Your task to perform on an android device: Open Reddit.com Image 0: 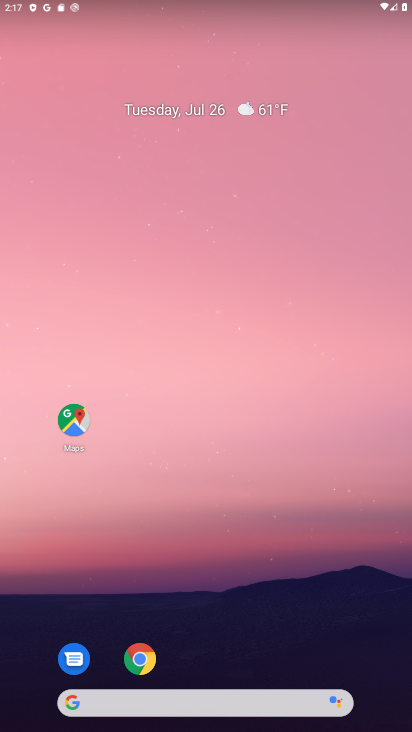
Step 0: click (133, 660)
Your task to perform on an android device: Open Reddit.com Image 1: 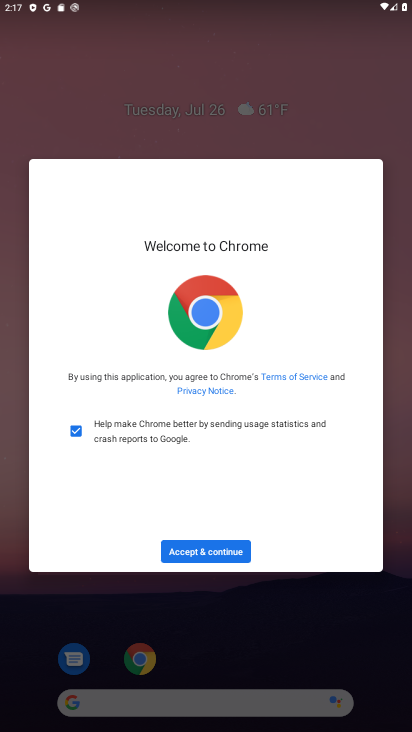
Step 1: click (245, 554)
Your task to perform on an android device: Open Reddit.com Image 2: 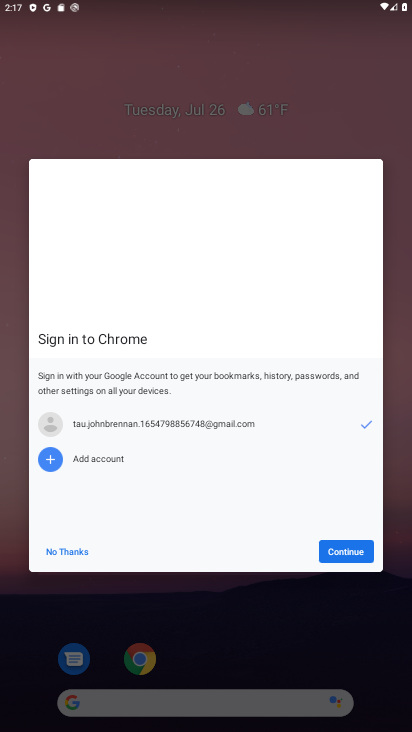
Step 2: click (359, 553)
Your task to perform on an android device: Open Reddit.com Image 3: 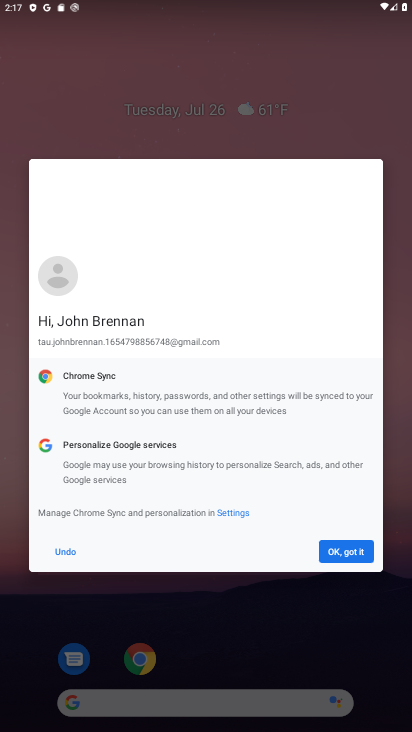
Step 3: click (330, 537)
Your task to perform on an android device: Open Reddit.com Image 4: 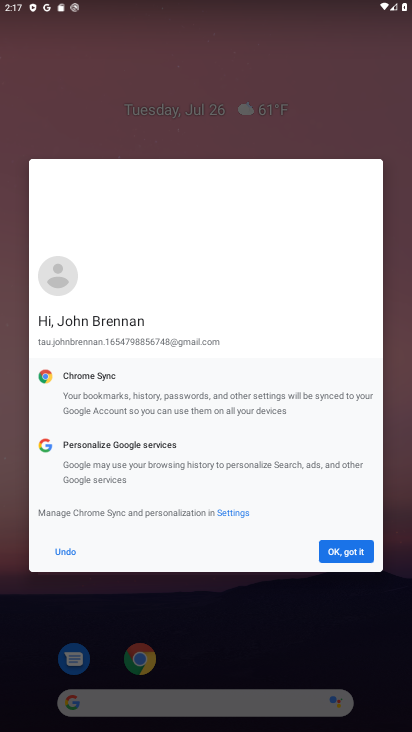
Step 4: click (334, 547)
Your task to perform on an android device: Open Reddit.com Image 5: 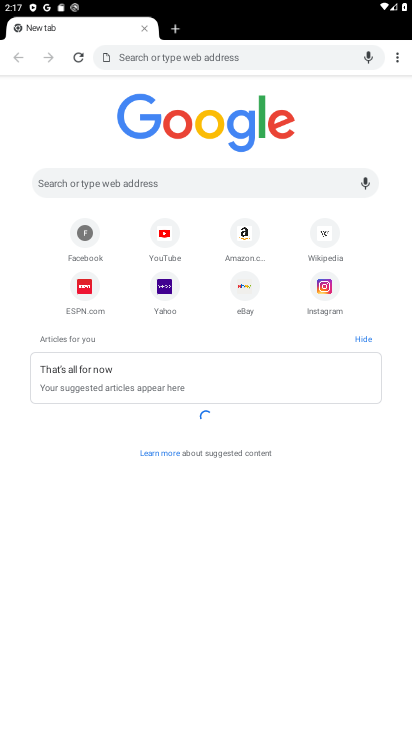
Step 5: click (242, 50)
Your task to perform on an android device: Open Reddit.com Image 6: 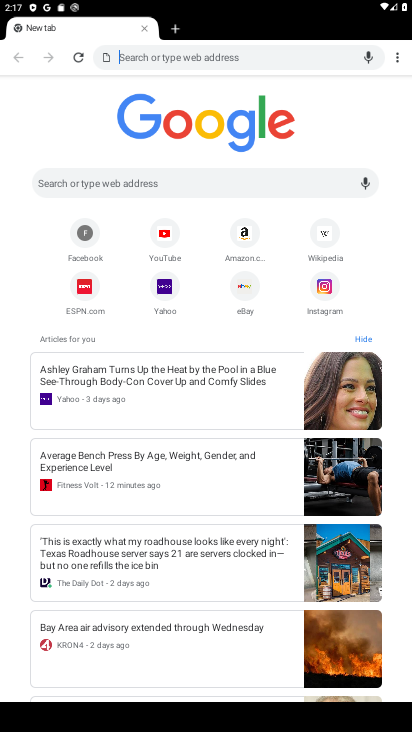
Step 6: type " Reddit.com"
Your task to perform on an android device: Open Reddit.com Image 7: 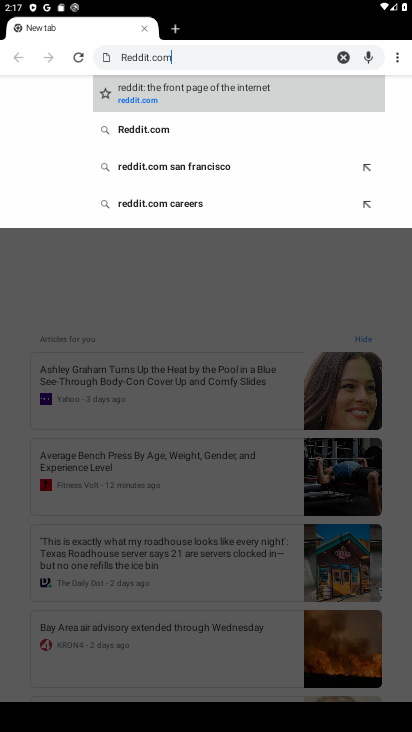
Step 7: click (157, 125)
Your task to perform on an android device: Open Reddit.com Image 8: 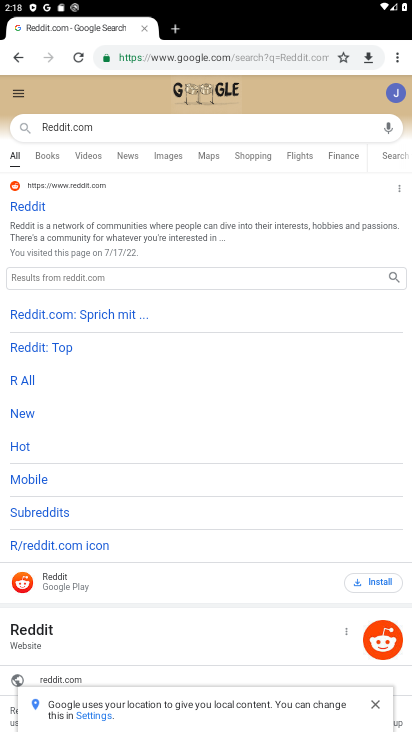
Step 8: task complete